Your task to perform on an android device: Open settings on Google Maps Image 0: 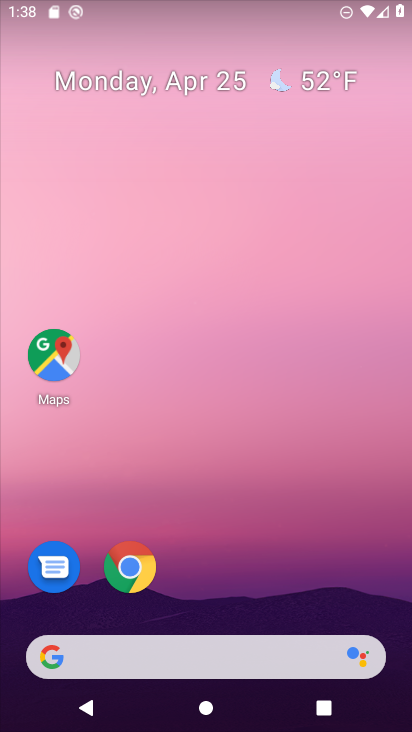
Step 0: click (51, 353)
Your task to perform on an android device: Open settings on Google Maps Image 1: 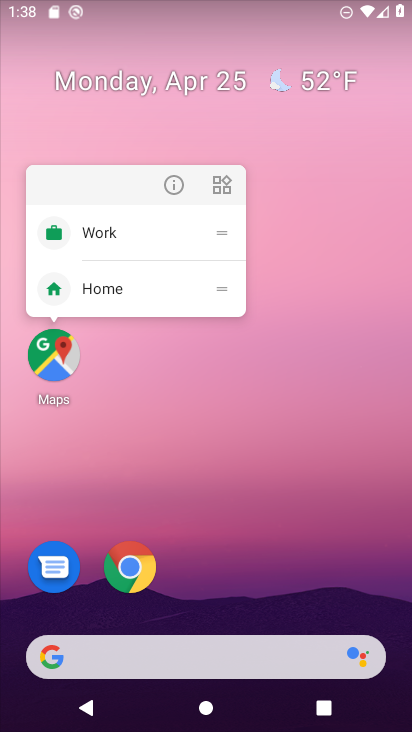
Step 1: click (51, 353)
Your task to perform on an android device: Open settings on Google Maps Image 2: 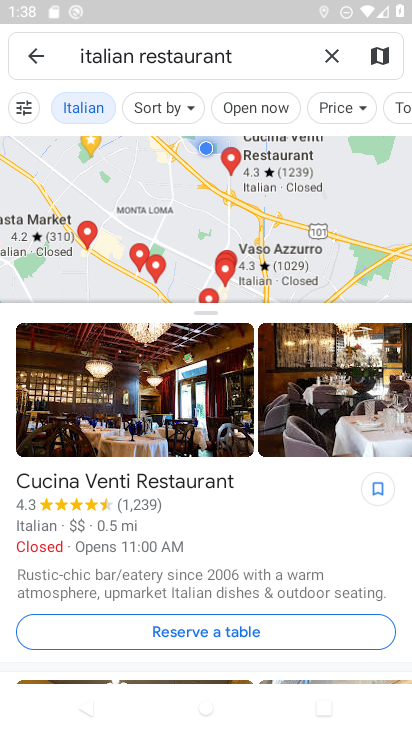
Step 2: click (40, 50)
Your task to perform on an android device: Open settings on Google Maps Image 3: 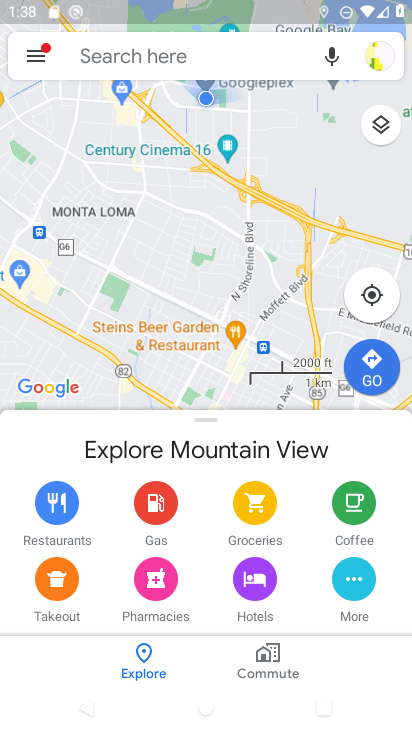
Step 3: click (40, 50)
Your task to perform on an android device: Open settings on Google Maps Image 4: 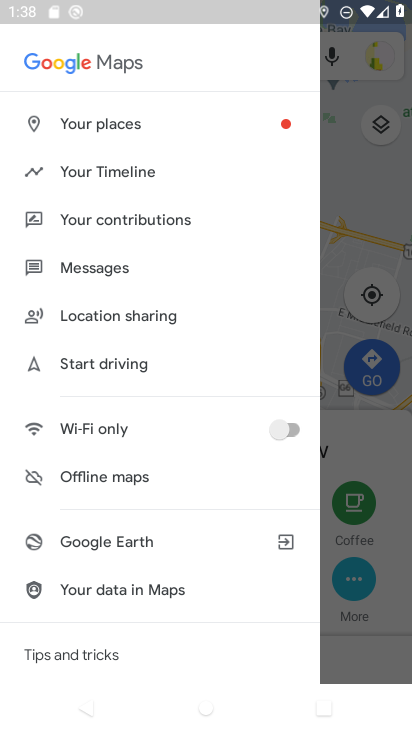
Step 4: drag from (153, 471) to (135, 109)
Your task to perform on an android device: Open settings on Google Maps Image 5: 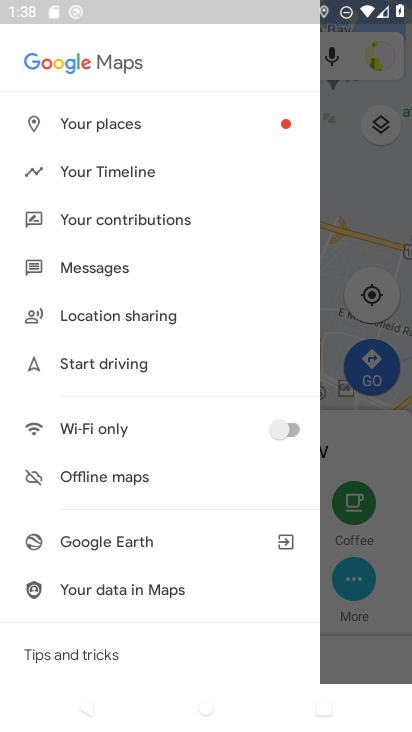
Step 5: drag from (115, 545) to (166, 185)
Your task to perform on an android device: Open settings on Google Maps Image 6: 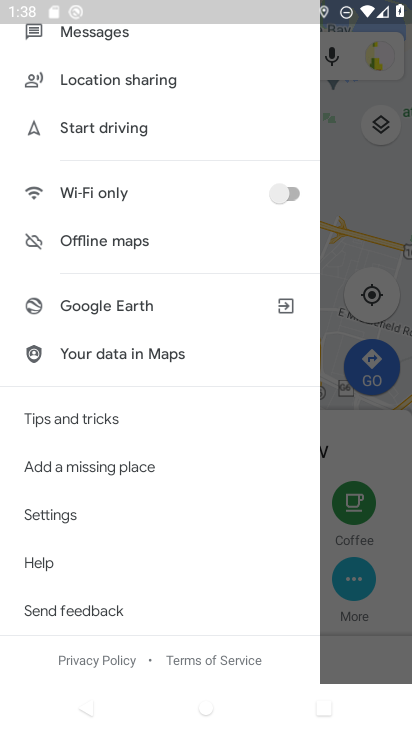
Step 6: click (106, 507)
Your task to perform on an android device: Open settings on Google Maps Image 7: 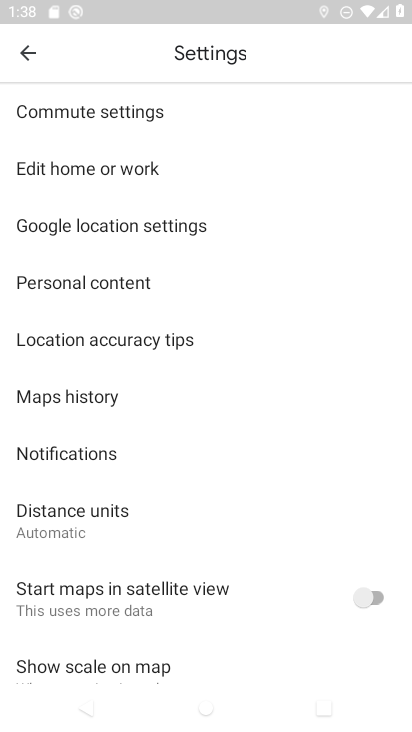
Step 7: task complete